Your task to perform on an android device: Open ESPN.com Image 0: 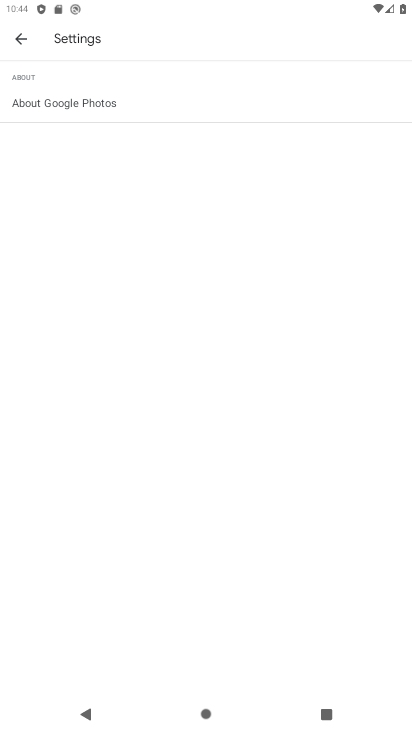
Step 0: press back button
Your task to perform on an android device: Open ESPN.com Image 1: 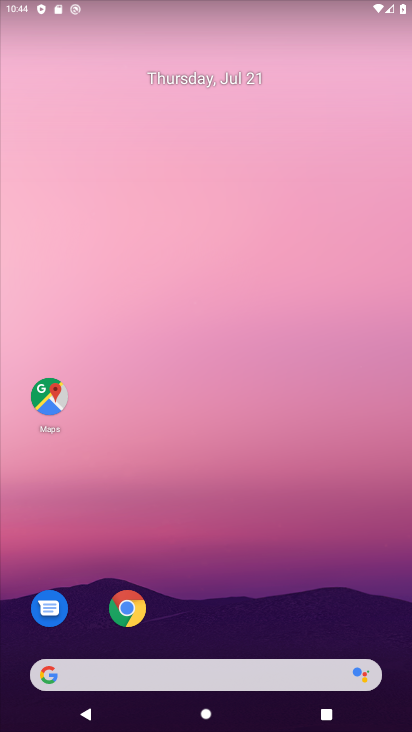
Step 1: click (143, 613)
Your task to perform on an android device: Open ESPN.com Image 2: 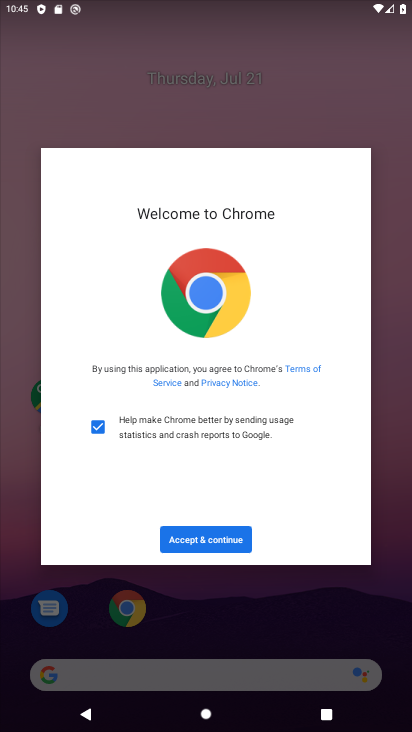
Step 2: click (182, 538)
Your task to perform on an android device: Open ESPN.com Image 3: 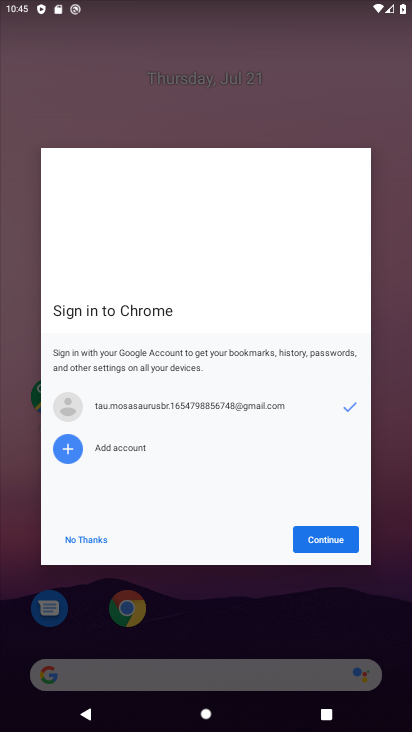
Step 3: click (309, 530)
Your task to perform on an android device: Open ESPN.com Image 4: 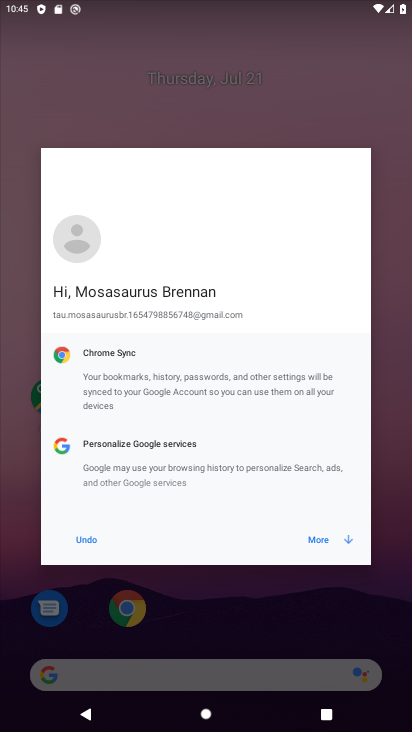
Step 4: click (313, 542)
Your task to perform on an android device: Open ESPN.com Image 5: 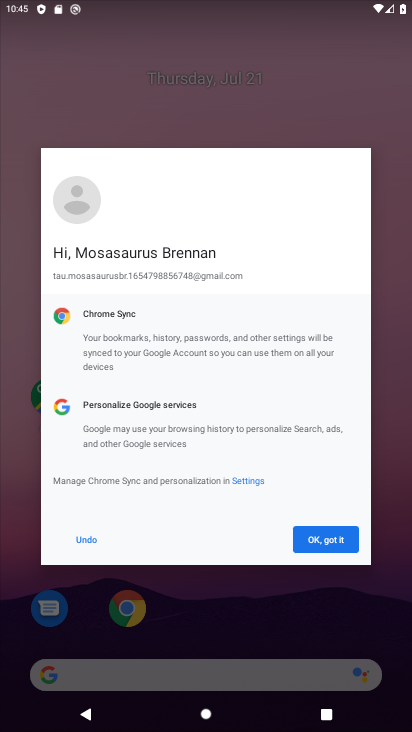
Step 5: click (314, 543)
Your task to perform on an android device: Open ESPN.com Image 6: 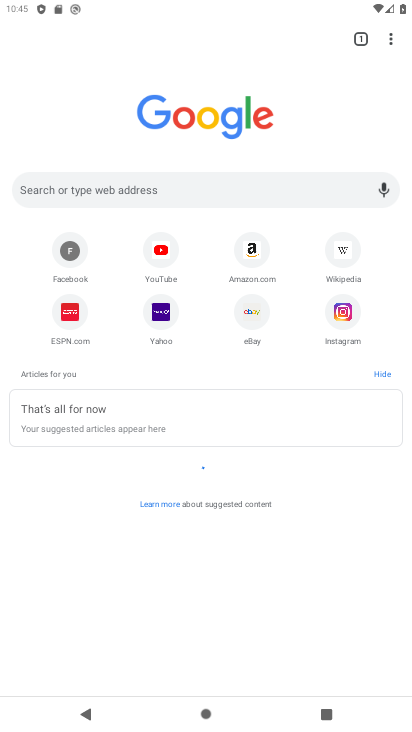
Step 6: click (61, 313)
Your task to perform on an android device: Open ESPN.com Image 7: 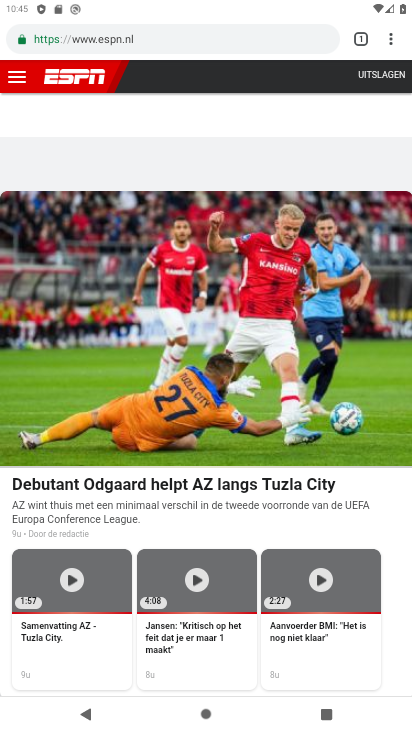
Step 7: task complete